Your task to perform on an android device: allow notifications from all sites in the chrome app Image 0: 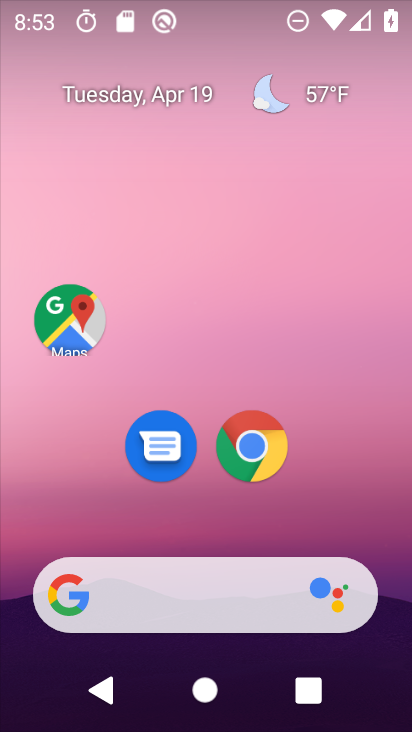
Step 0: click (245, 433)
Your task to perform on an android device: allow notifications from all sites in the chrome app Image 1: 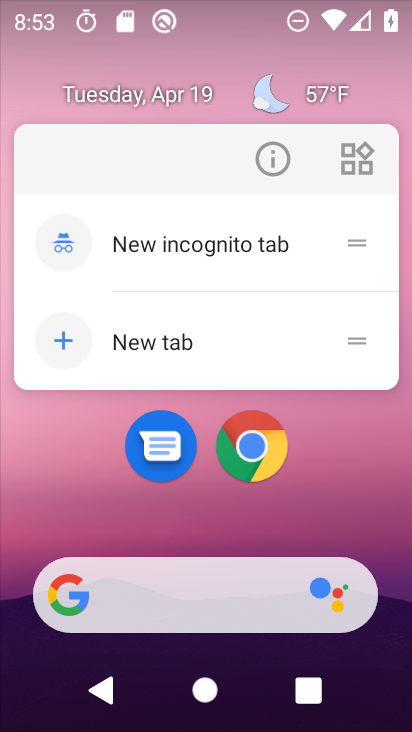
Step 1: click (250, 428)
Your task to perform on an android device: allow notifications from all sites in the chrome app Image 2: 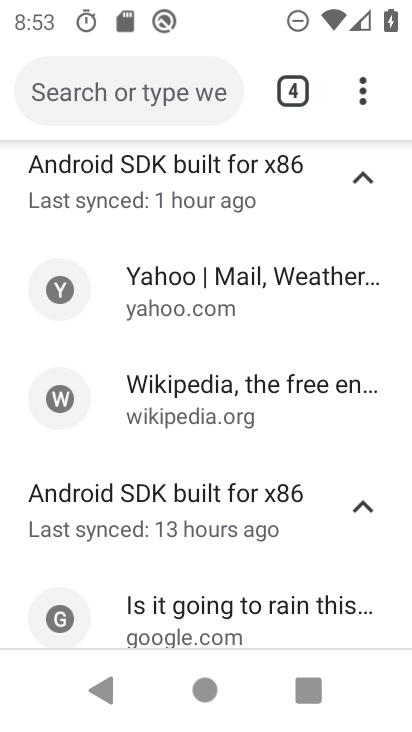
Step 2: click (362, 96)
Your task to perform on an android device: allow notifications from all sites in the chrome app Image 3: 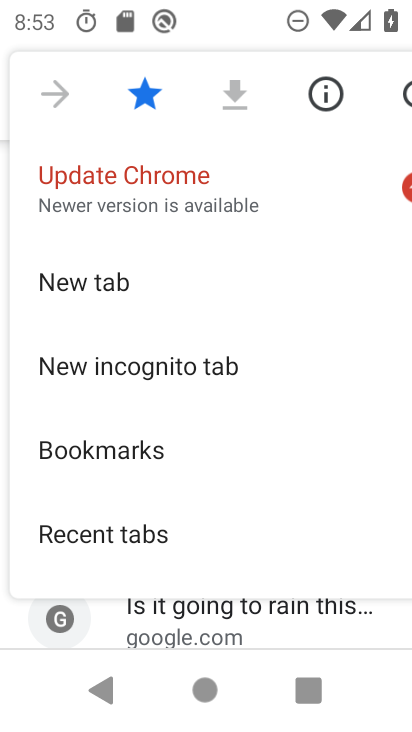
Step 3: drag from (189, 450) to (221, 109)
Your task to perform on an android device: allow notifications from all sites in the chrome app Image 4: 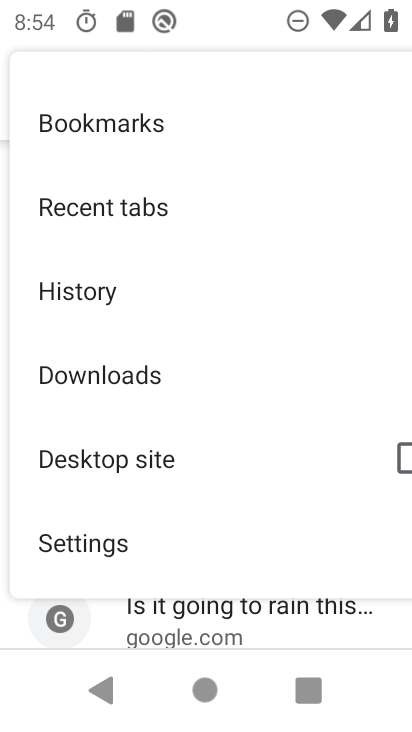
Step 4: click (121, 545)
Your task to perform on an android device: allow notifications from all sites in the chrome app Image 5: 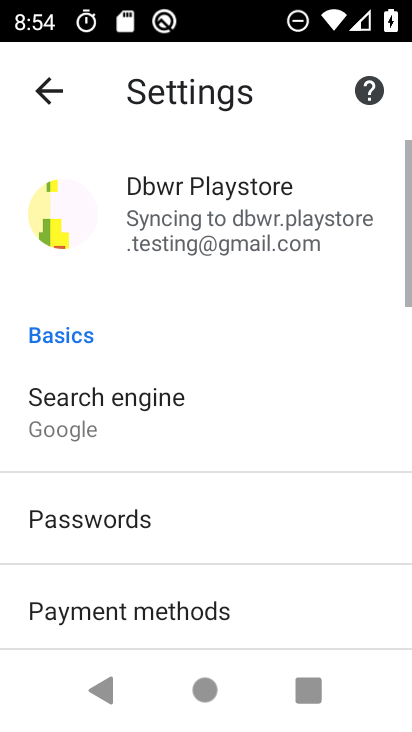
Step 5: drag from (161, 595) to (220, 185)
Your task to perform on an android device: allow notifications from all sites in the chrome app Image 6: 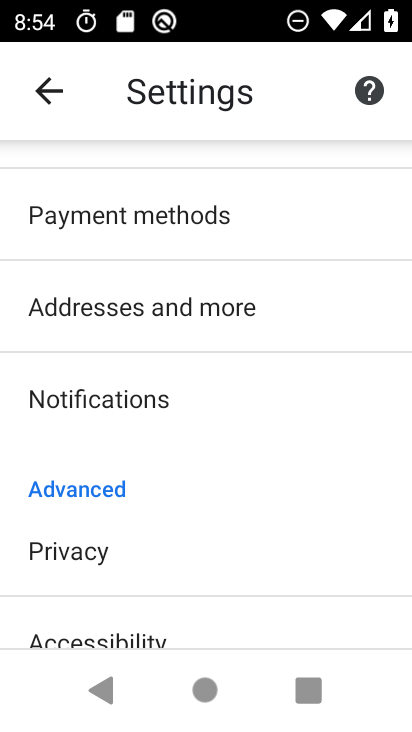
Step 6: click (147, 389)
Your task to perform on an android device: allow notifications from all sites in the chrome app Image 7: 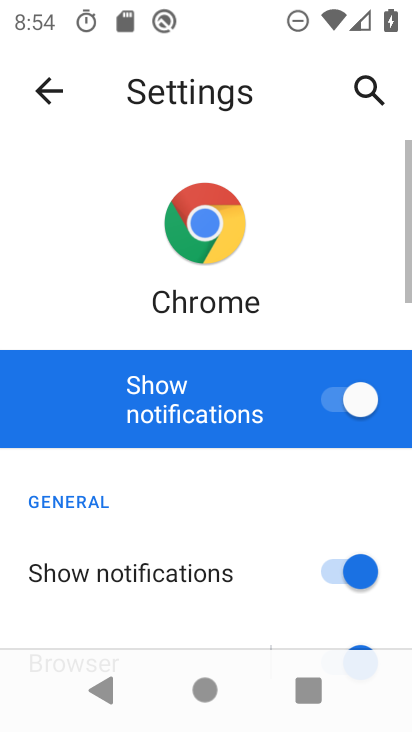
Step 7: task complete